Your task to perform on an android device: What's the weather today? Image 0: 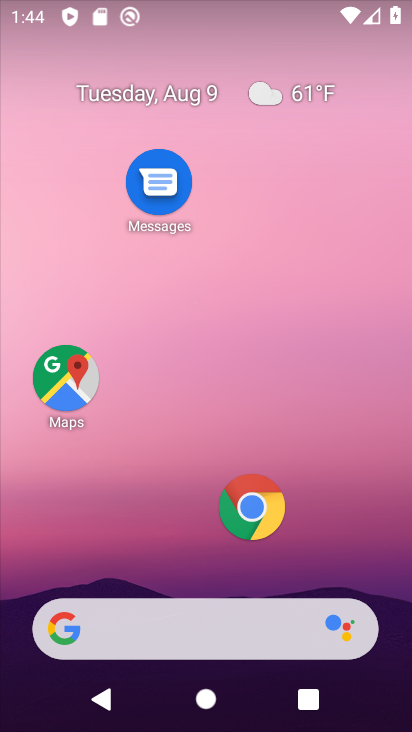
Step 0: click (171, 620)
Your task to perform on an android device: What's the weather today? Image 1: 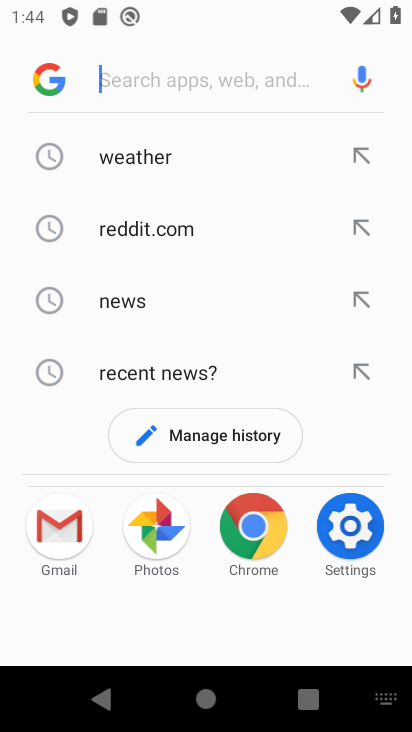
Step 1: click (111, 153)
Your task to perform on an android device: What's the weather today? Image 2: 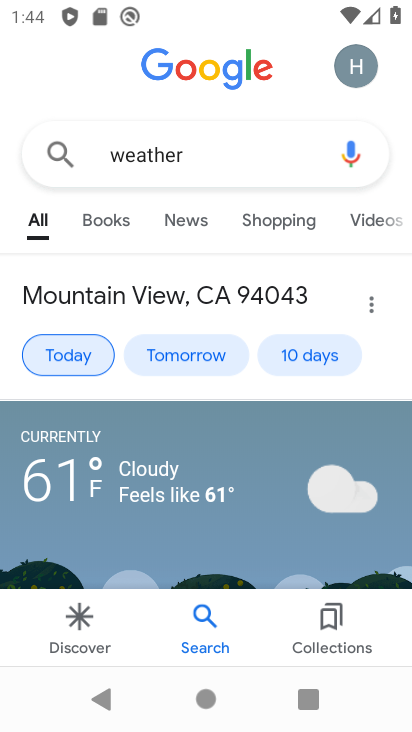
Step 2: click (64, 351)
Your task to perform on an android device: What's the weather today? Image 3: 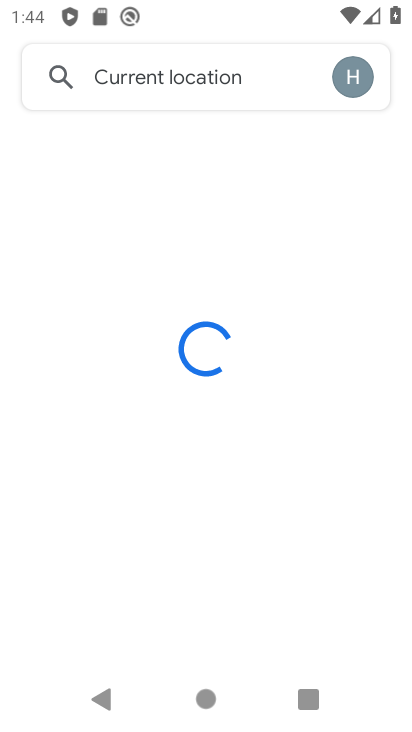
Step 3: task complete